Your task to perform on an android device: star an email in the gmail app Image 0: 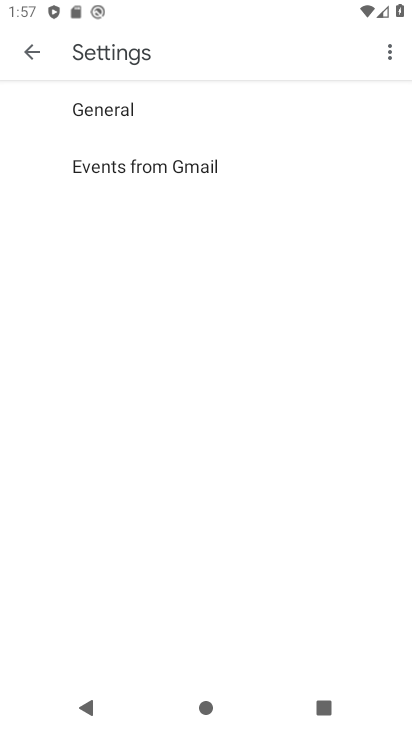
Step 0: press home button
Your task to perform on an android device: star an email in the gmail app Image 1: 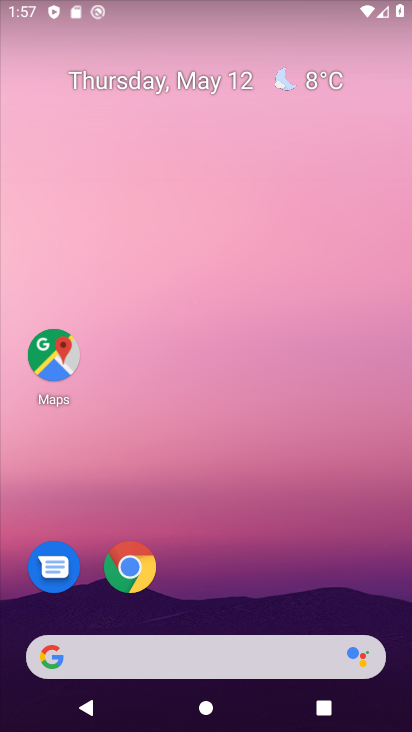
Step 1: drag from (294, 462) to (349, 144)
Your task to perform on an android device: star an email in the gmail app Image 2: 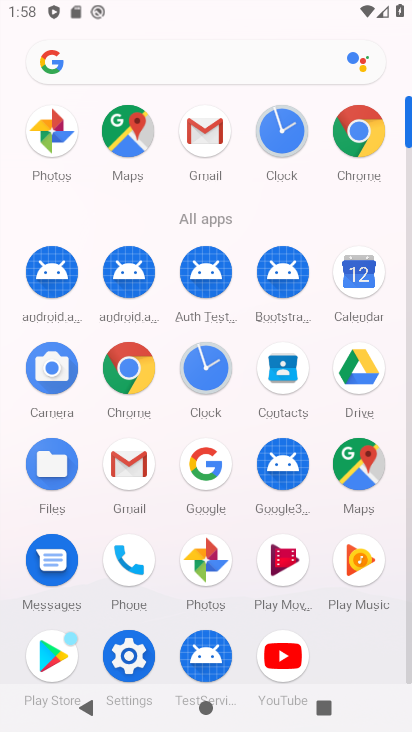
Step 2: click (206, 148)
Your task to perform on an android device: star an email in the gmail app Image 3: 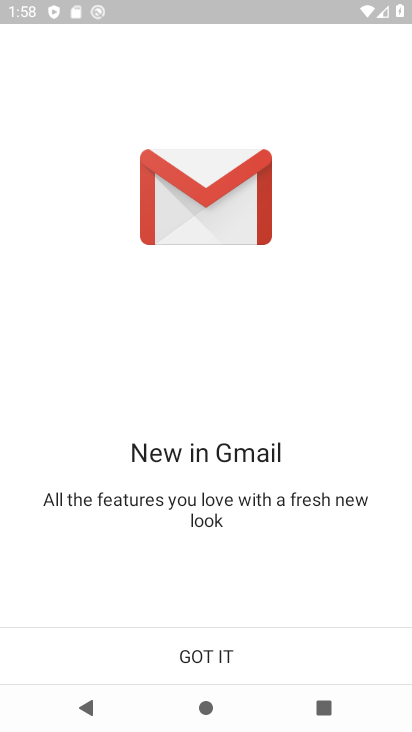
Step 3: click (226, 642)
Your task to perform on an android device: star an email in the gmail app Image 4: 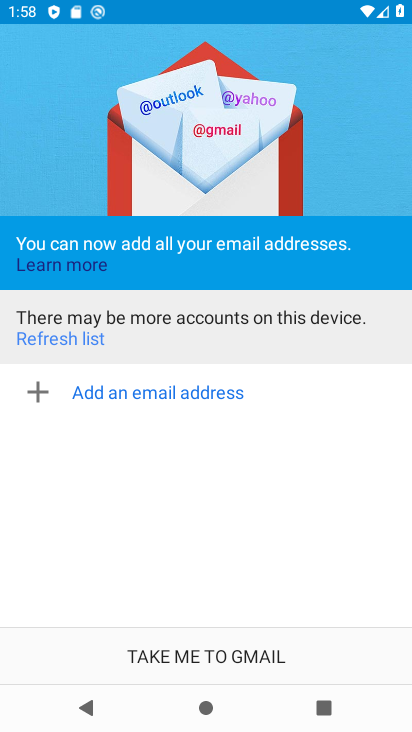
Step 4: click (225, 652)
Your task to perform on an android device: star an email in the gmail app Image 5: 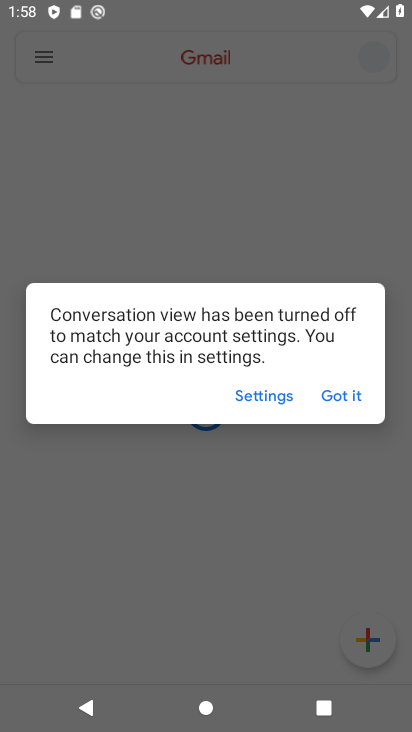
Step 5: click (344, 405)
Your task to perform on an android device: star an email in the gmail app Image 6: 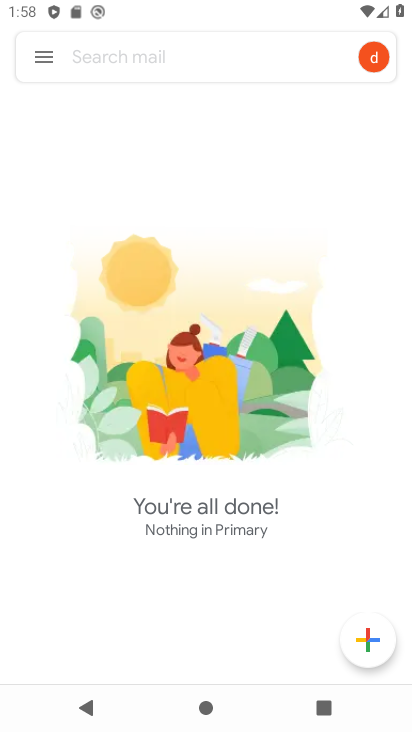
Step 6: click (43, 52)
Your task to perform on an android device: star an email in the gmail app Image 7: 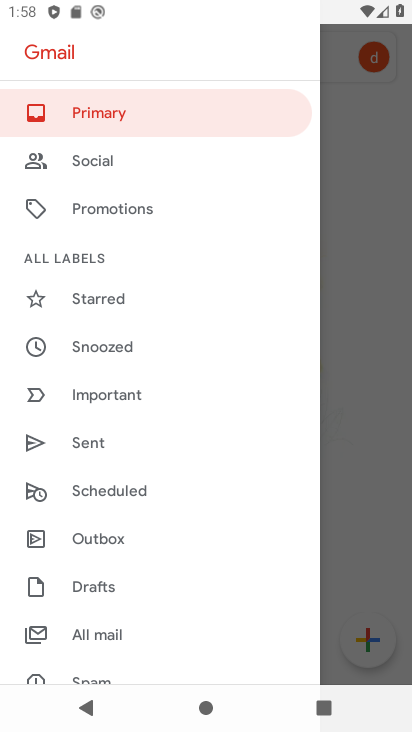
Step 7: click (83, 112)
Your task to perform on an android device: star an email in the gmail app Image 8: 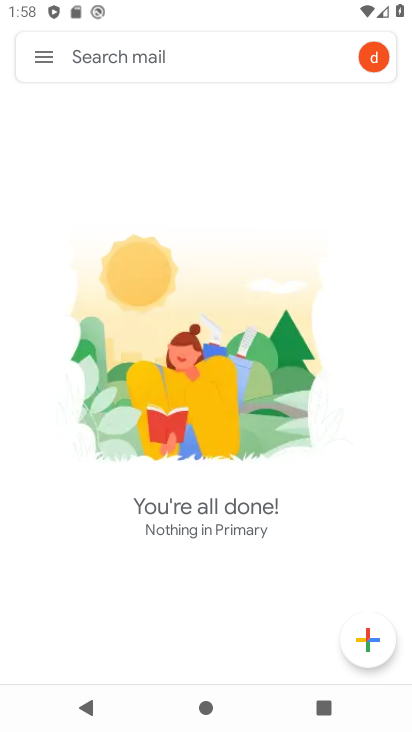
Step 8: task complete